Your task to perform on an android device: turn off notifications in google photos Image 0: 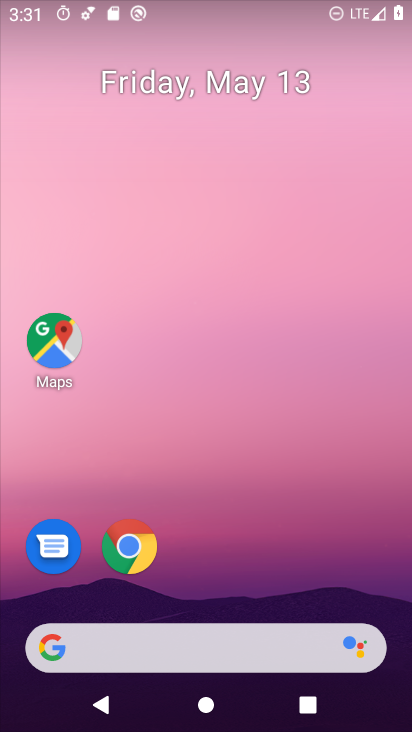
Step 0: drag from (252, 579) to (301, 159)
Your task to perform on an android device: turn off notifications in google photos Image 1: 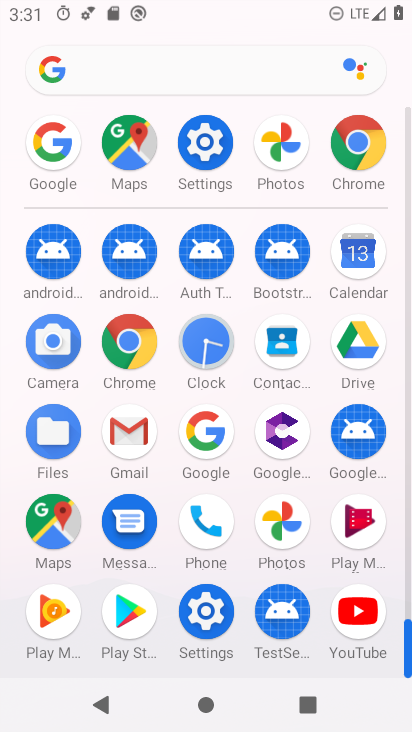
Step 1: click (288, 546)
Your task to perform on an android device: turn off notifications in google photos Image 2: 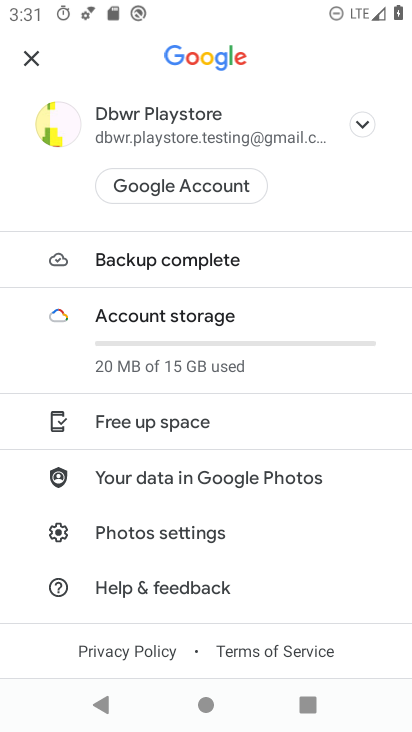
Step 2: press home button
Your task to perform on an android device: turn off notifications in google photos Image 3: 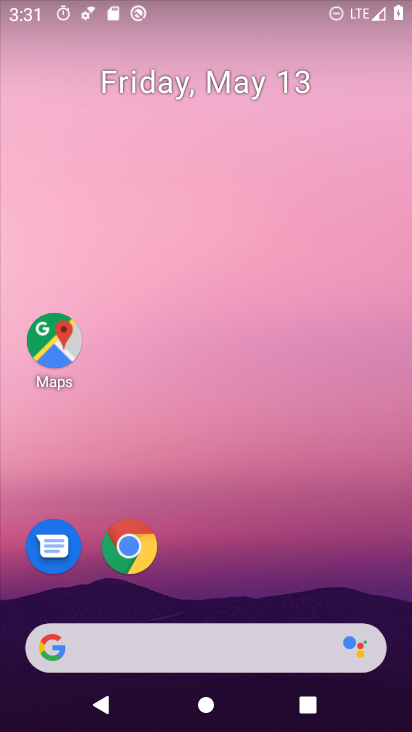
Step 3: drag from (200, 597) to (212, 231)
Your task to perform on an android device: turn off notifications in google photos Image 4: 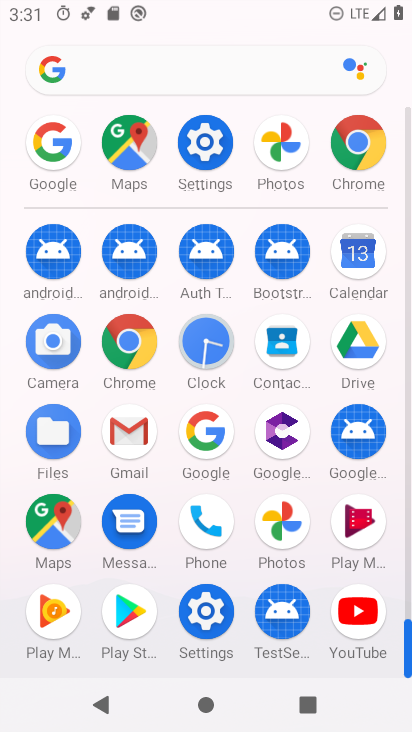
Step 4: click (294, 538)
Your task to perform on an android device: turn off notifications in google photos Image 5: 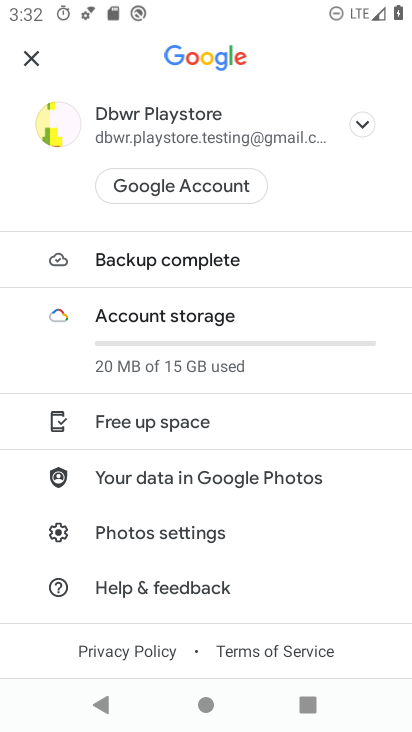
Step 5: click (172, 540)
Your task to perform on an android device: turn off notifications in google photos Image 6: 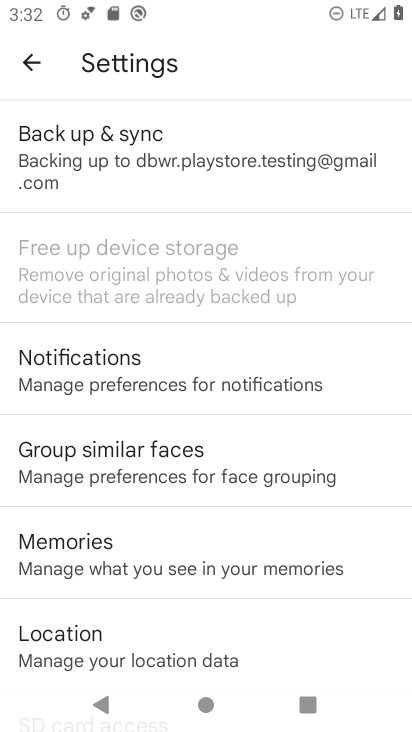
Step 6: click (155, 385)
Your task to perform on an android device: turn off notifications in google photos Image 7: 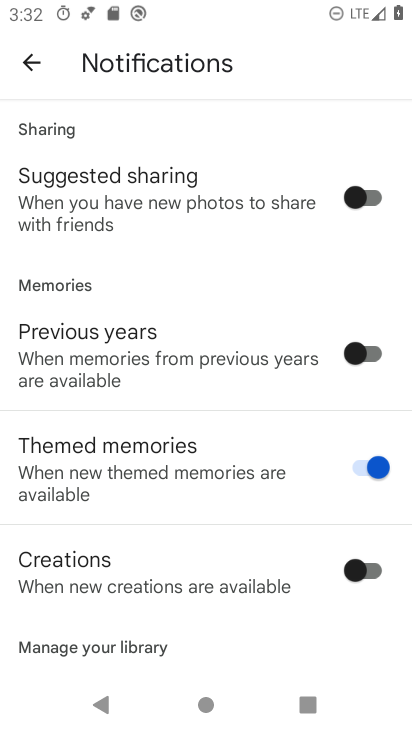
Step 7: task complete